Your task to perform on an android device: uninstall "Walmart Shopping & Grocery" Image 0: 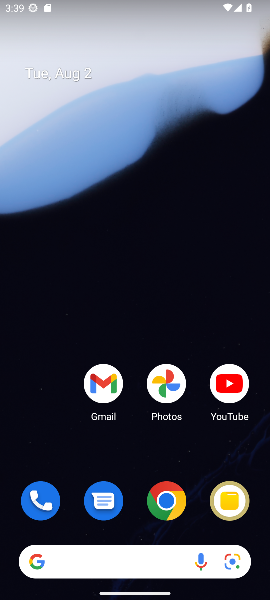
Step 0: drag from (156, 461) to (143, 192)
Your task to perform on an android device: uninstall "Walmart Shopping & Grocery" Image 1: 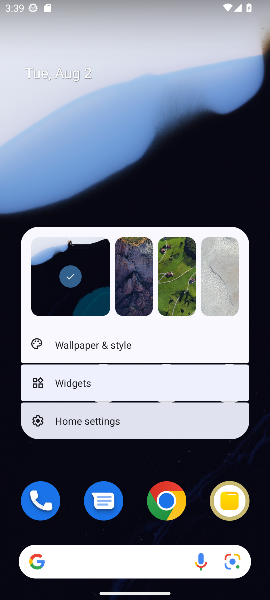
Step 1: click (173, 210)
Your task to perform on an android device: uninstall "Walmart Shopping & Grocery" Image 2: 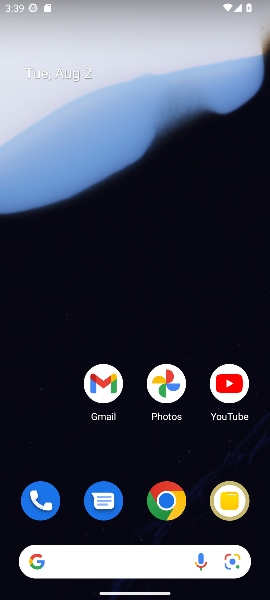
Step 2: drag from (181, 470) to (168, 147)
Your task to perform on an android device: uninstall "Walmart Shopping & Grocery" Image 3: 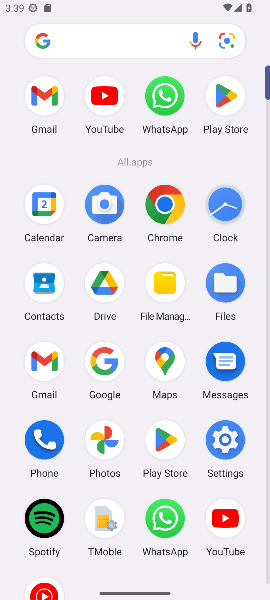
Step 3: click (158, 446)
Your task to perform on an android device: uninstall "Walmart Shopping & Grocery" Image 4: 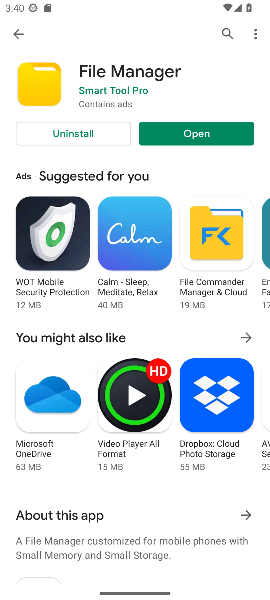
Step 4: click (231, 31)
Your task to perform on an android device: uninstall "Walmart Shopping & Grocery" Image 5: 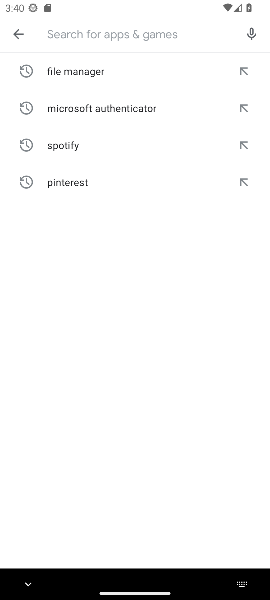
Step 5: type "walmart shopping & grocery"
Your task to perform on an android device: uninstall "Walmart Shopping & Grocery" Image 6: 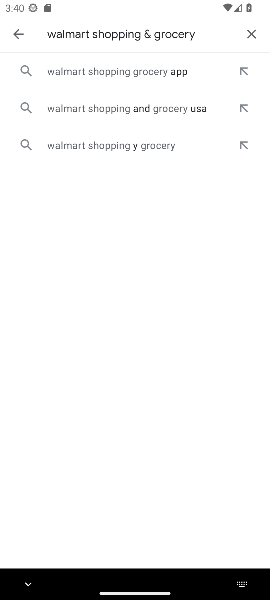
Step 6: click (170, 76)
Your task to perform on an android device: uninstall "Walmart Shopping & Grocery" Image 7: 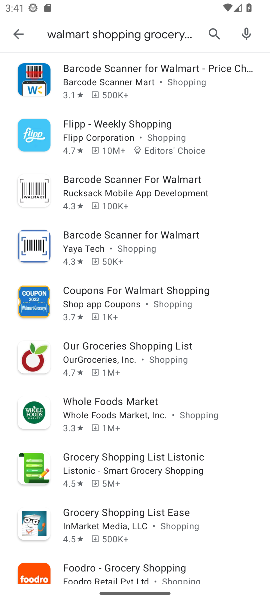
Step 7: task complete